Your task to perform on an android device: toggle airplane mode Image 0: 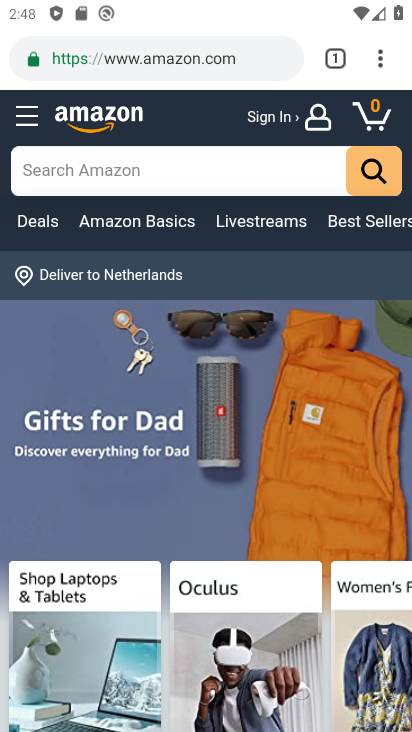
Step 0: press home button
Your task to perform on an android device: toggle airplane mode Image 1: 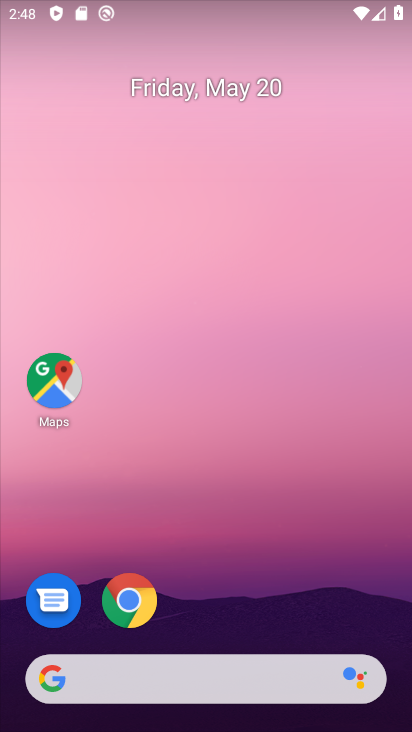
Step 1: drag from (208, 606) to (195, 12)
Your task to perform on an android device: toggle airplane mode Image 2: 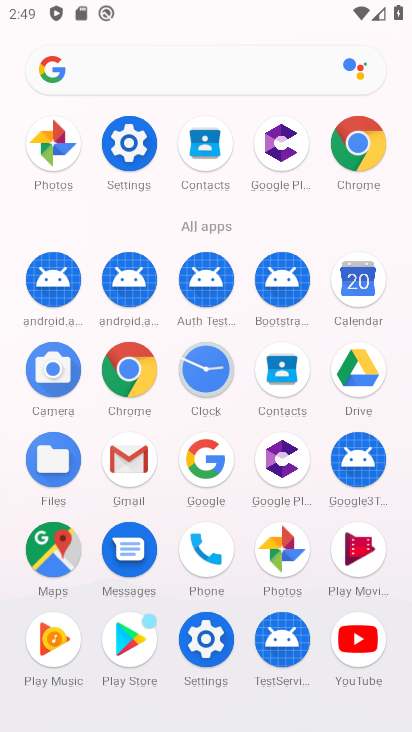
Step 2: click (129, 155)
Your task to perform on an android device: toggle airplane mode Image 3: 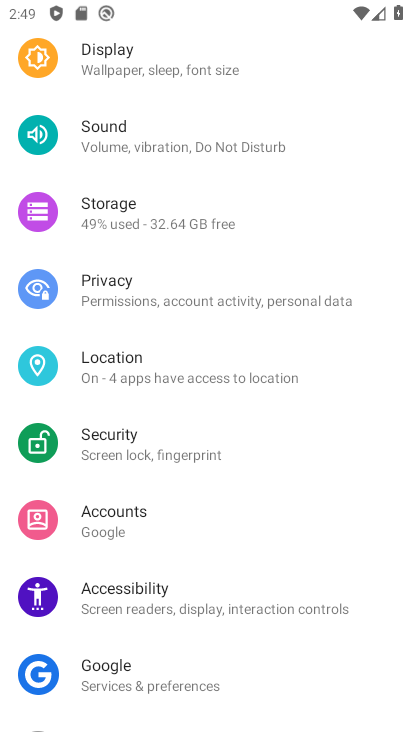
Step 3: drag from (215, 247) to (227, 660)
Your task to perform on an android device: toggle airplane mode Image 4: 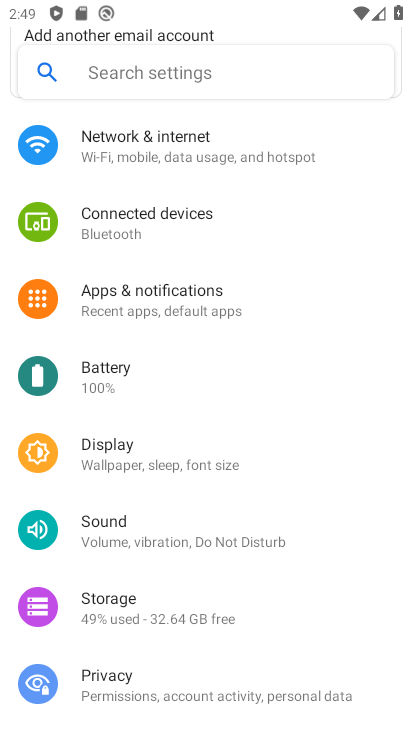
Step 4: drag from (189, 270) to (194, 518)
Your task to perform on an android device: toggle airplane mode Image 5: 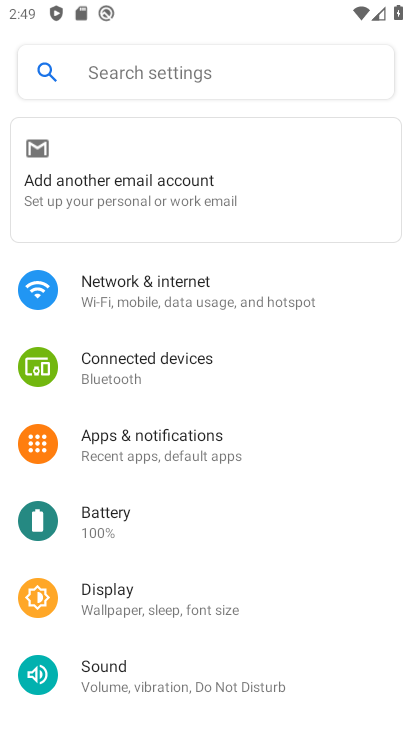
Step 5: click (143, 306)
Your task to perform on an android device: toggle airplane mode Image 6: 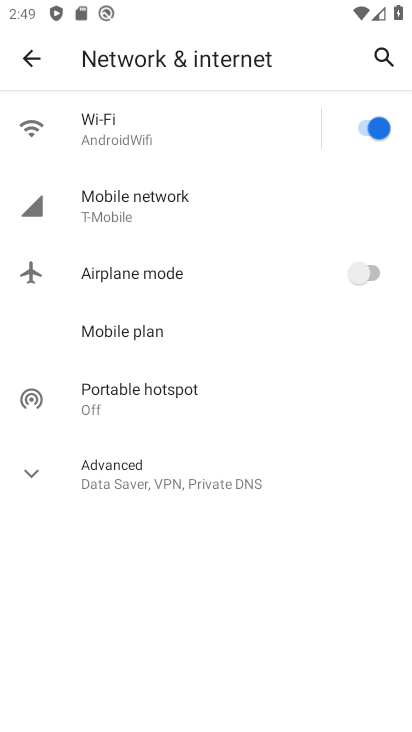
Step 6: click (170, 284)
Your task to perform on an android device: toggle airplane mode Image 7: 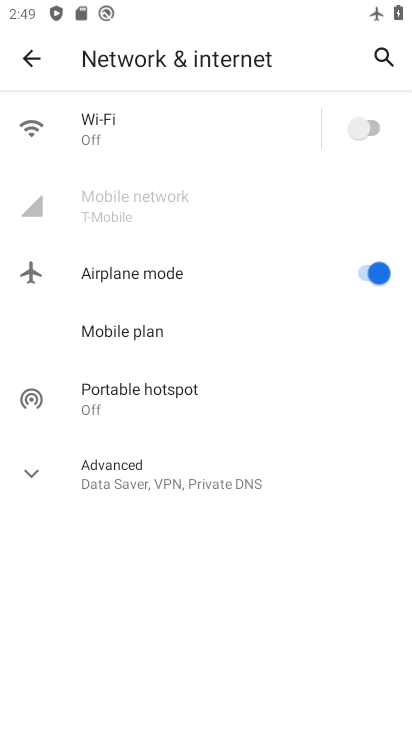
Step 7: task complete